Your task to perform on an android device: see creations saved in the google photos Image 0: 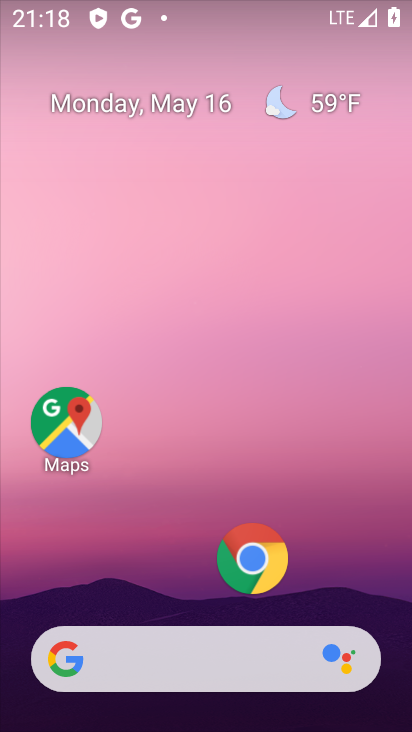
Step 0: drag from (166, 575) to (243, 15)
Your task to perform on an android device: see creations saved in the google photos Image 1: 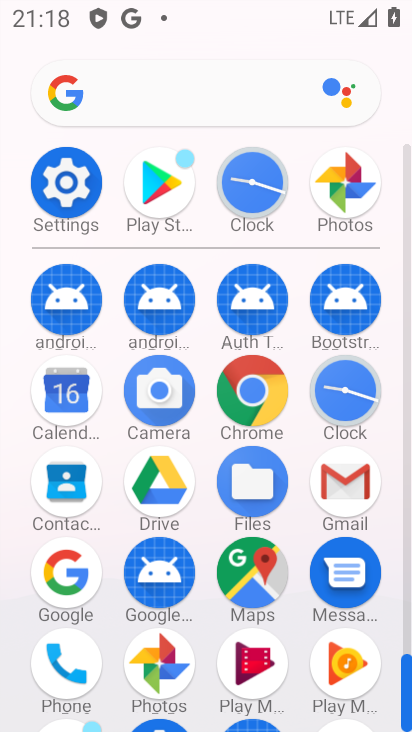
Step 1: click (156, 659)
Your task to perform on an android device: see creations saved in the google photos Image 2: 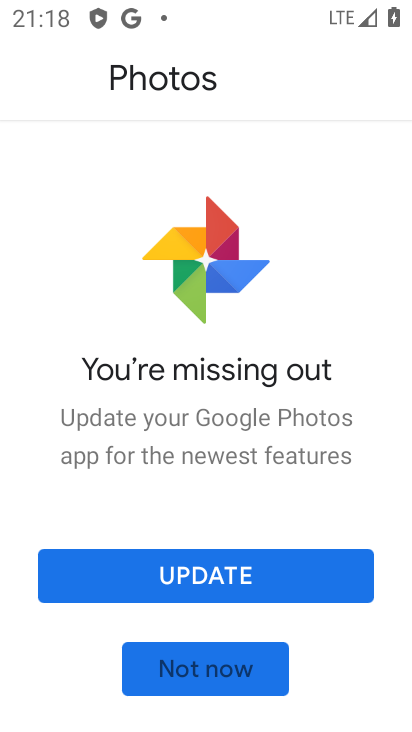
Step 2: click (185, 692)
Your task to perform on an android device: see creations saved in the google photos Image 3: 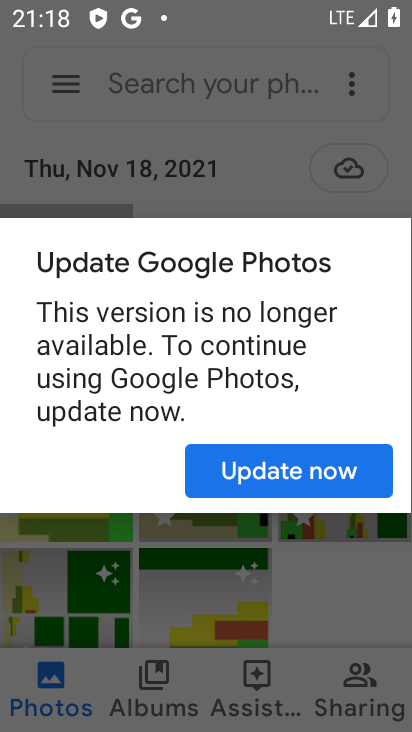
Step 3: drag from (263, 461) to (308, 461)
Your task to perform on an android device: see creations saved in the google photos Image 4: 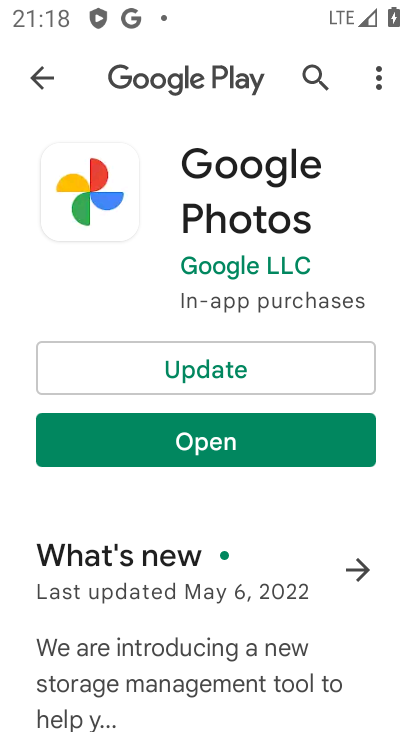
Step 4: click (215, 450)
Your task to perform on an android device: see creations saved in the google photos Image 5: 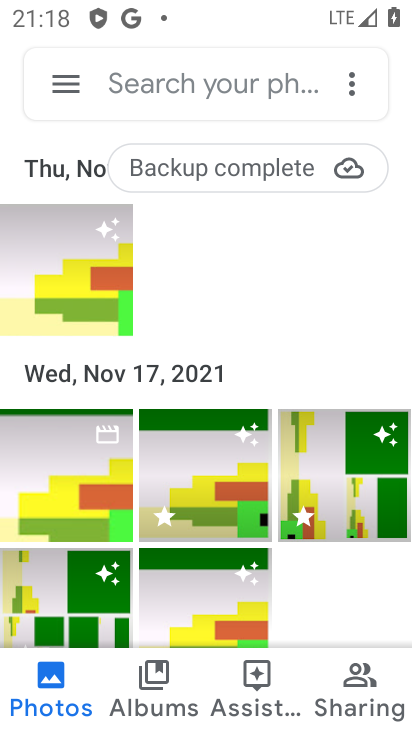
Step 5: click (57, 81)
Your task to perform on an android device: see creations saved in the google photos Image 6: 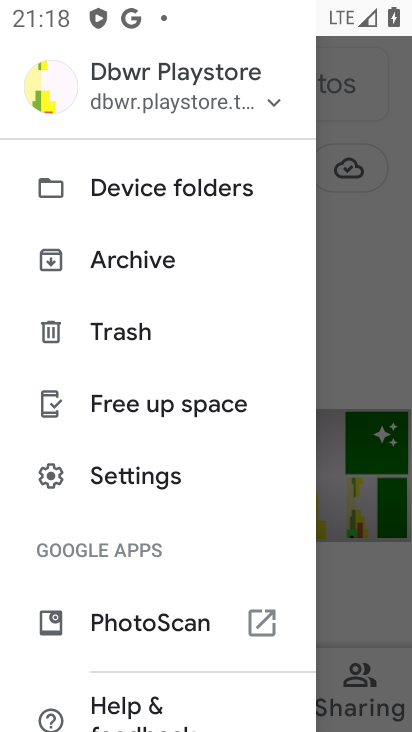
Step 6: click (136, 252)
Your task to perform on an android device: see creations saved in the google photos Image 7: 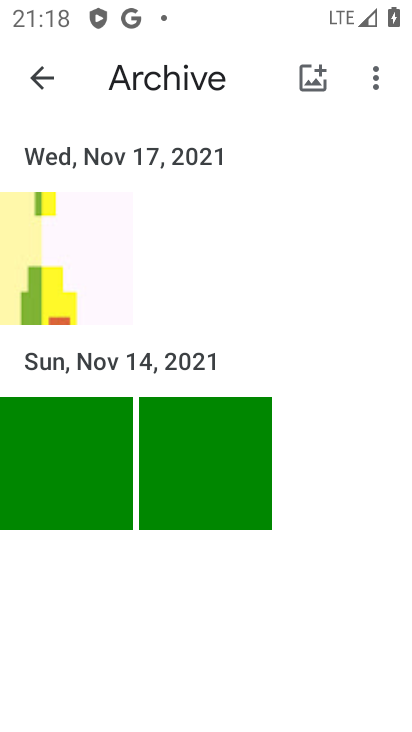
Step 7: task complete